Your task to perform on an android device: What's the weather going to be tomorrow? Image 0: 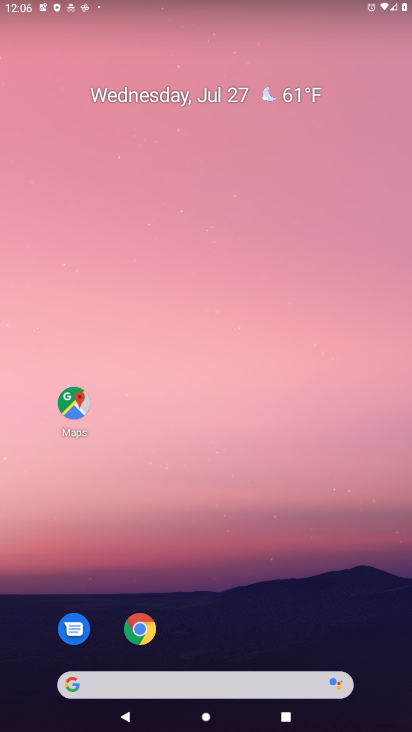
Step 0: drag from (276, 658) to (242, 61)
Your task to perform on an android device: What's the weather going to be tomorrow? Image 1: 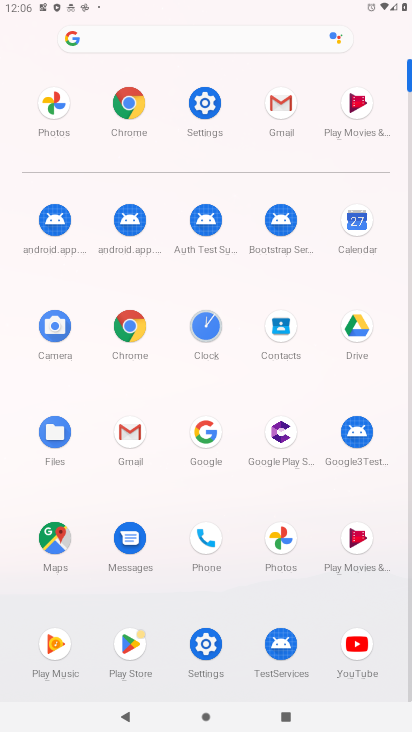
Step 1: click (219, 38)
Your task to perform on an android device: What's the weather going to be tomorrow? Image 2: 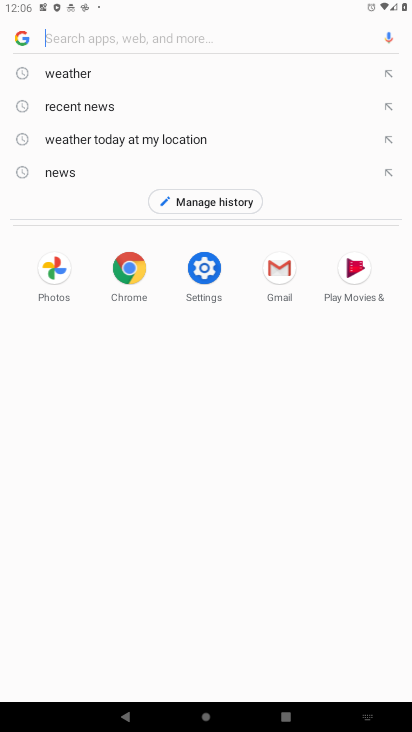
Step 2: click (98, 69)
Your task to perform on an android device: What's the weather going to be tomorrow? Image 3: 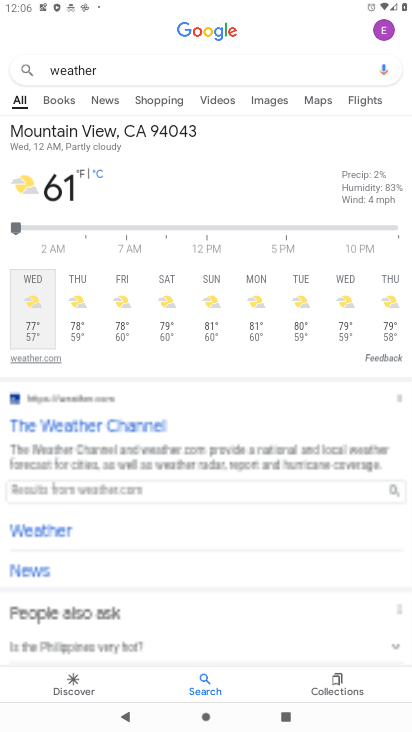
Step 3: task complete